Your task to perform on an android device: Open calendar and show me the first week of next month Image 0: 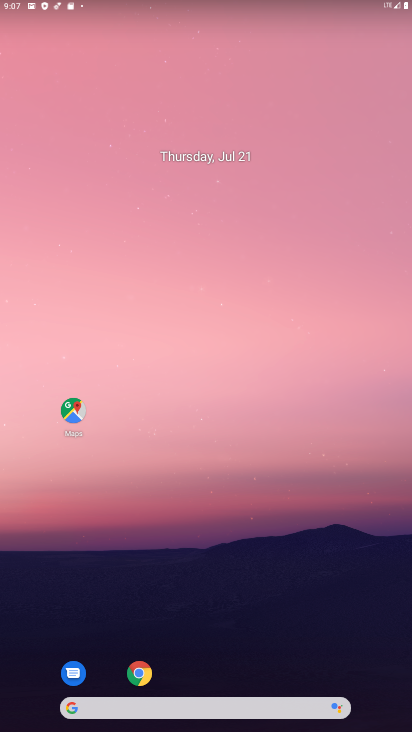
Step 0: drag from (188, 622) to (217, 170)
Your task to perform on an android device: Open calendar and show me the first week of next month Image 1: 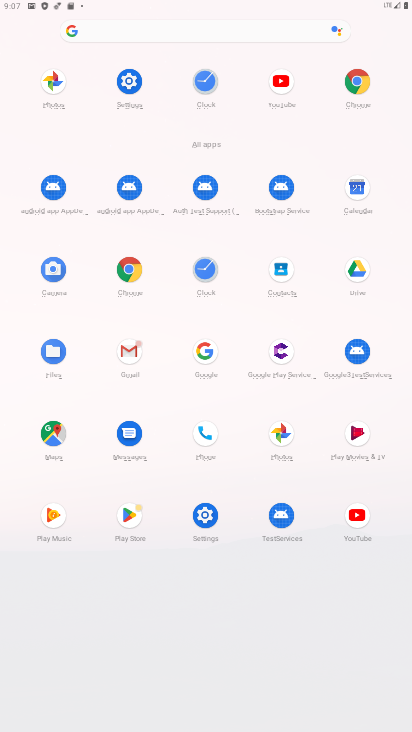
Step 1: click (348, 187)
Your task to perform on an android device: Open calendar and show me the first week of next month Image 2: 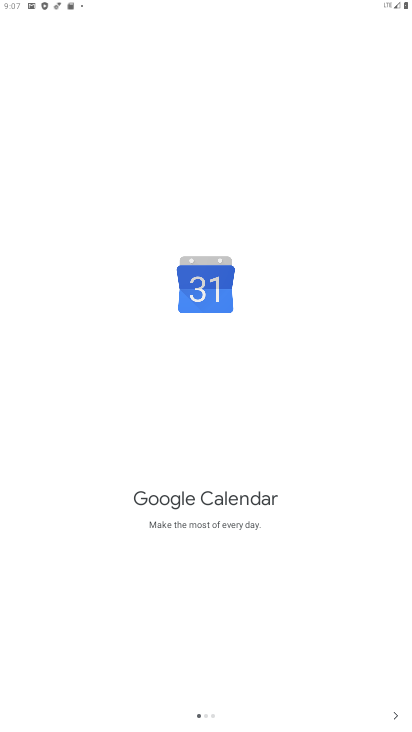
Step 2: click (395, 709)
Your task to perform on an android device: Open calendar and show me the first week of next month Image 3: 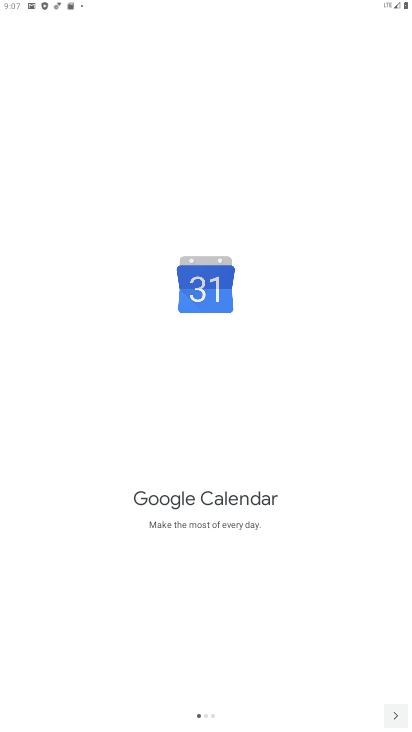
Step 3: click (395, 709)
Your task to perform on an android device: Open calendar and show me the first week of next month Image 4: 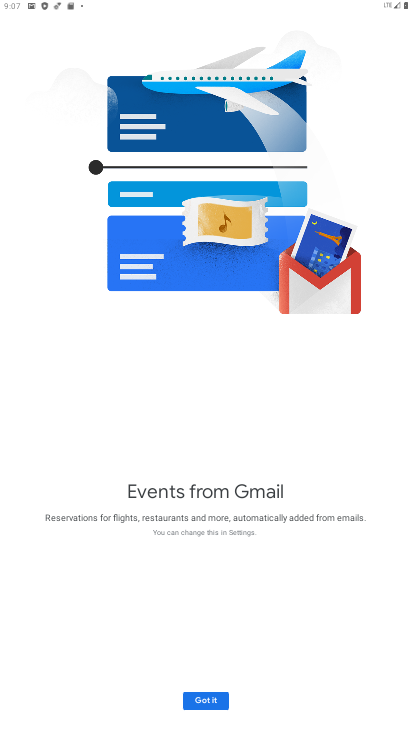
Step 4: click (200, 688)
Your task to perform on an android device: Open calendar and show me the first week of next month Image 5: 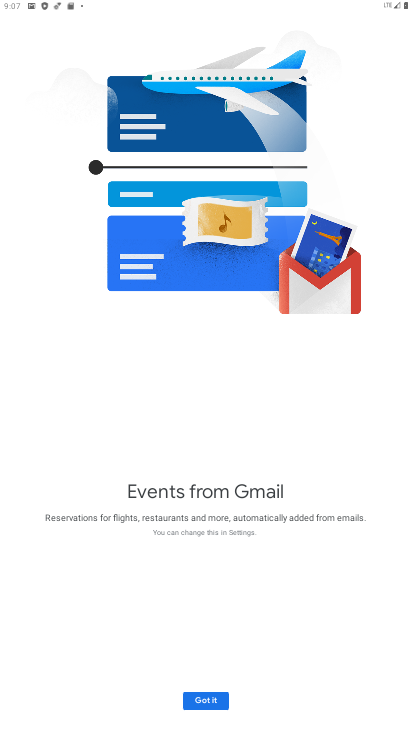
Step 5: click (195, 696)
Your task to perform on an android device: Open calendar and show me the first week of next month Image 6: 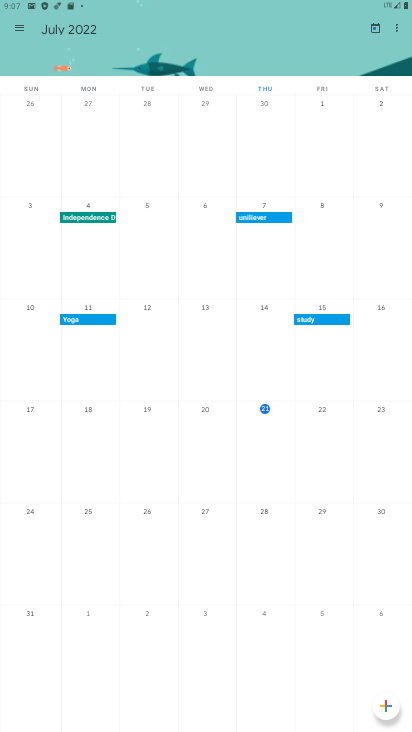
Step 6: click (382, 31)
Your task to perform on an android device: Open calendar and show me the first week of next month Image 7: 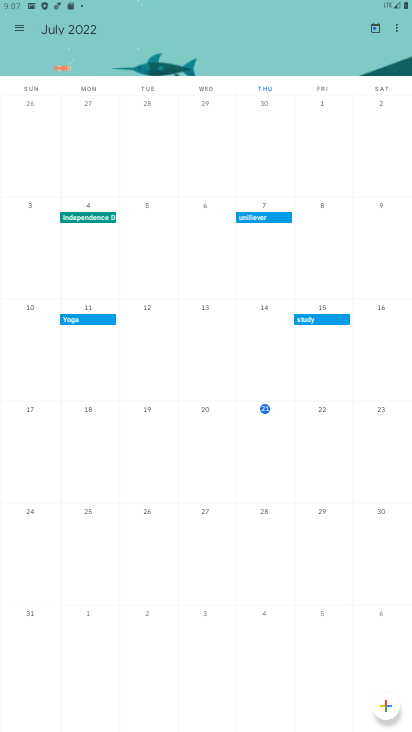
Step 7: drag from (343, 432) to (18, 486)
Your task to perform on an android device: Open calendar and show me the first week of next month Image 8: 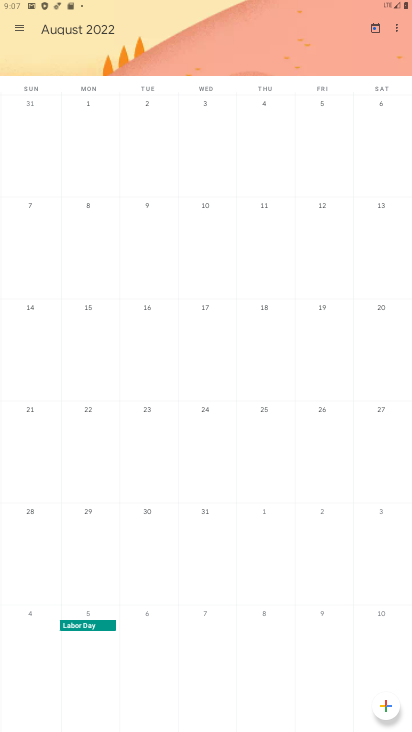
Step 8: click (266, 102)
Your task to perform on an android device: Open calendar and show me the first week of next month Image 9: 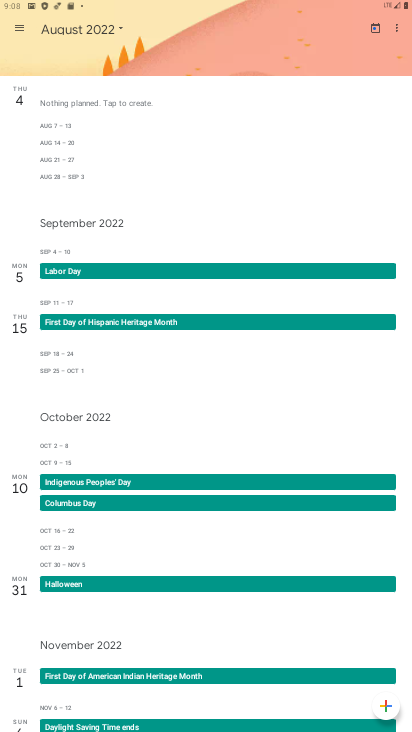
Step 9: task complete